Your task to perform on an android device: check battery use Image 0: 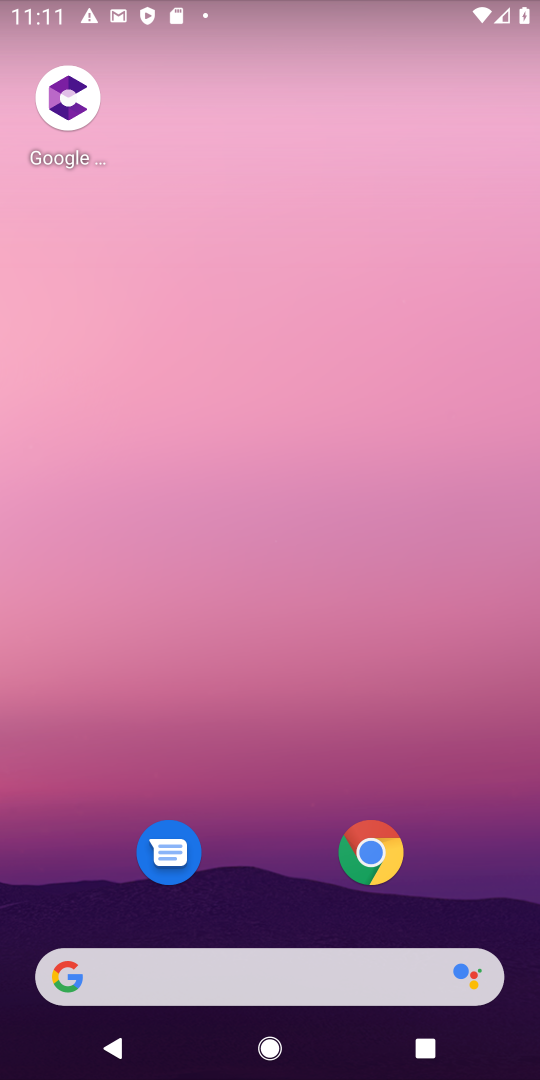
Step 0: drag from (284, 306) to (283, 211)
Your task to perform on an android device: check battery use Image 1: 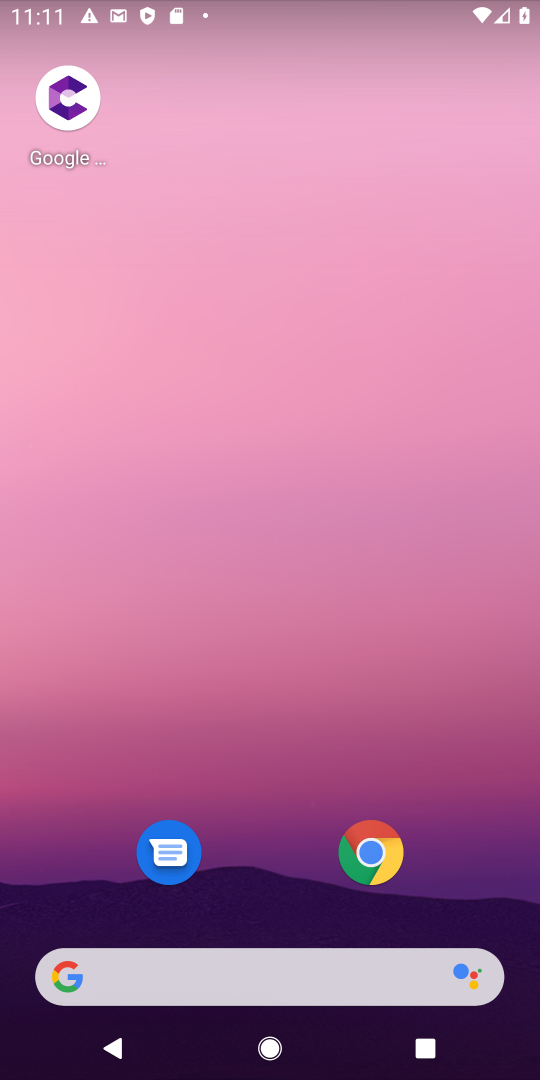
Step 1: drag from (274, 824) to (303, 33)
Your task to perform on an android device: check battery use Image 2: 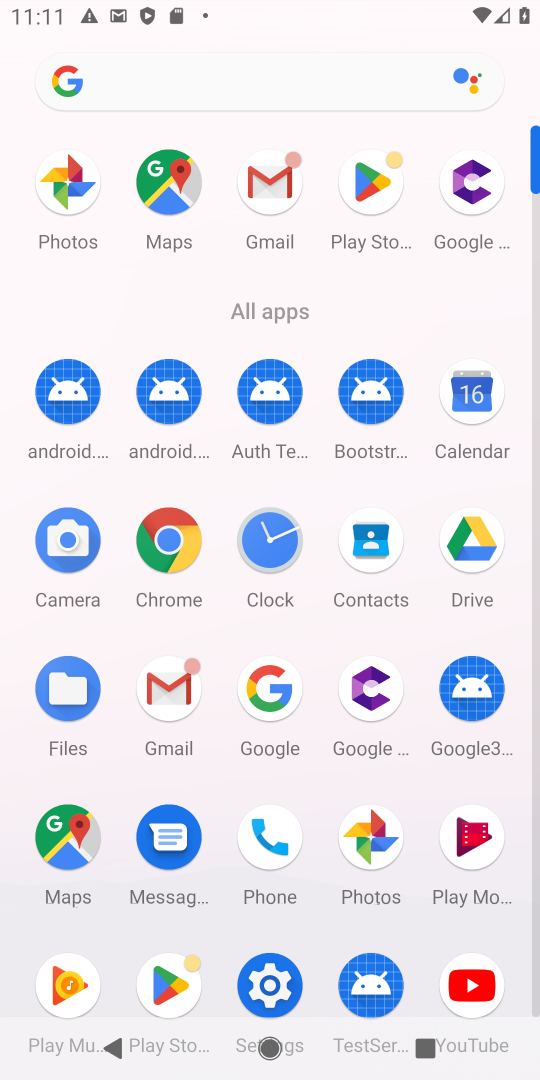
Step 2: click (282, 969)
Your task to perform on an android device: check battery use Image 3: 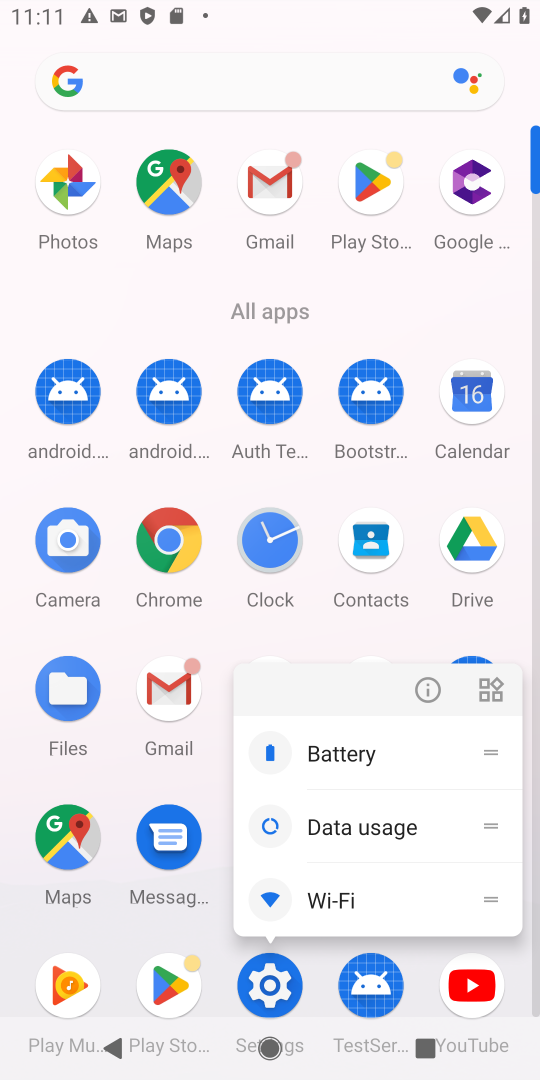
Step 3: click (359, 762)
Your task to perform on an android device: check battery use Image 4: 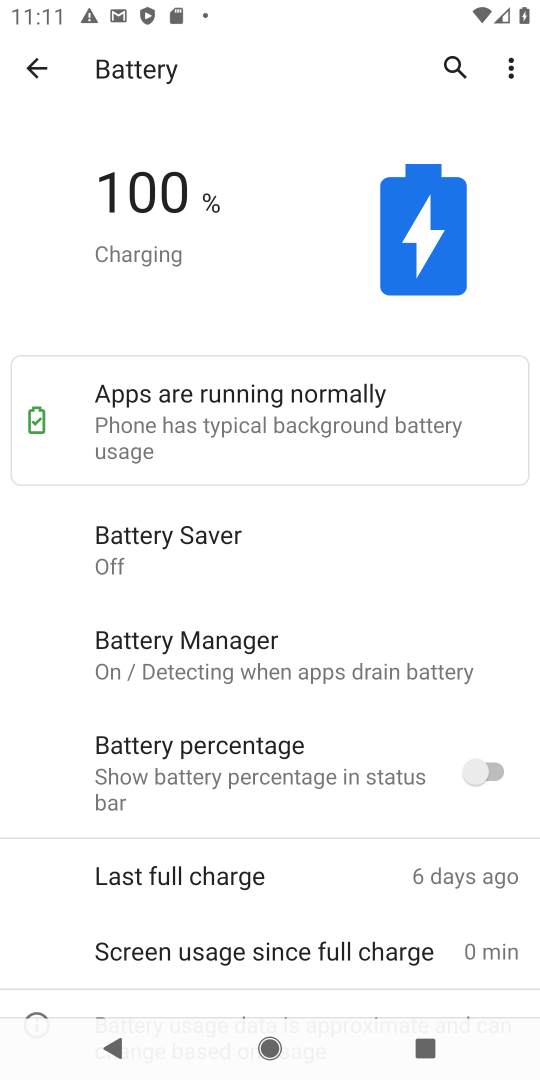
Step 4: task complete